Your task to perform on an android device: manage bookmarks in the chrome app Image 0: 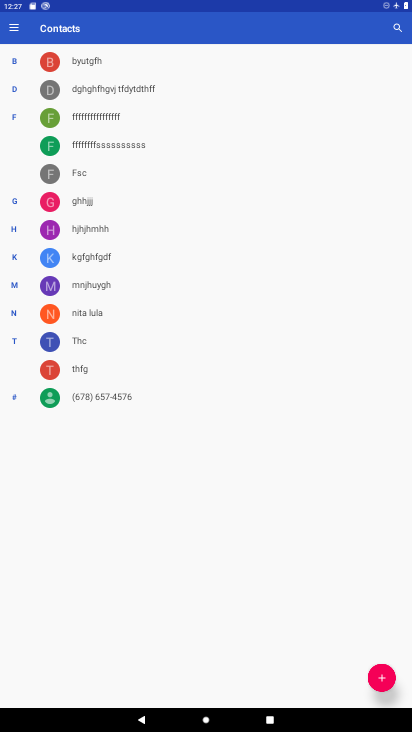
Step 0: press home button
Your task to perform on an android device: manage bookmarks in the chrome app Image 1: 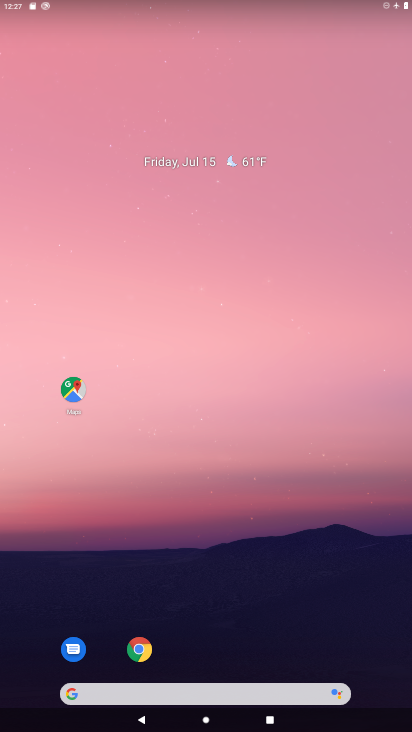
Step 1: click (148, 651)
Your task to perform on an android device: manage bookmarks in the chrome app Image 2: 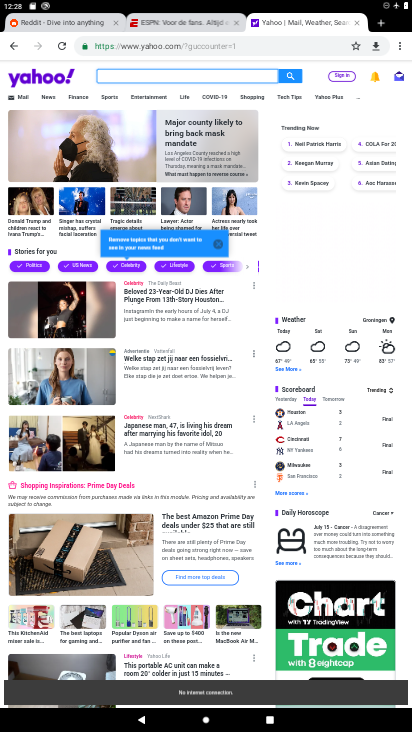
Step 2: click (401, 47)
Your task to perform on an android device: manage bookmarks in the chrome app Image 3: 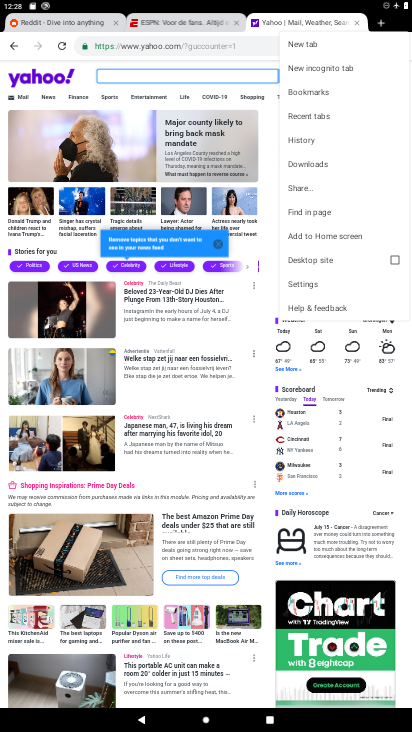
Step 3: click (323, 89)
Your task to perform on an android device: manage bookmarks in the chrome app Image 4: 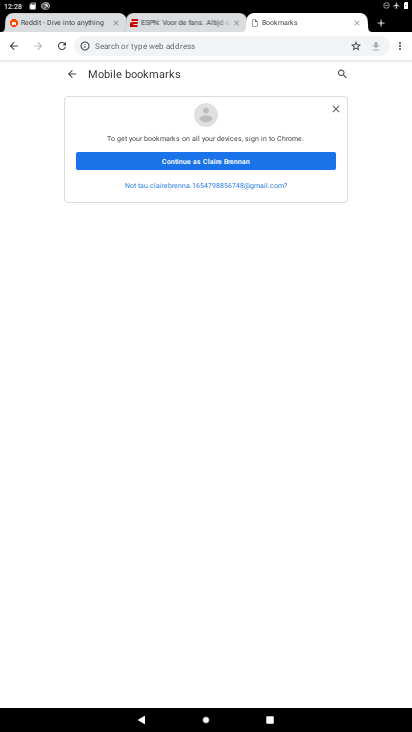
Step 4: click (219, 168)
Your task to perform on an android device: manage bookmarks in the chrome app Image 5: 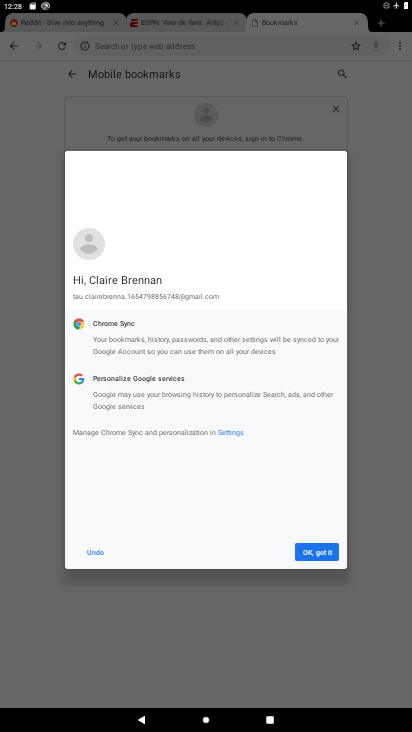
Step 5: click (306, 545)
Your task to perform on an android device: manage bookmarks in the chrome app Image 6: 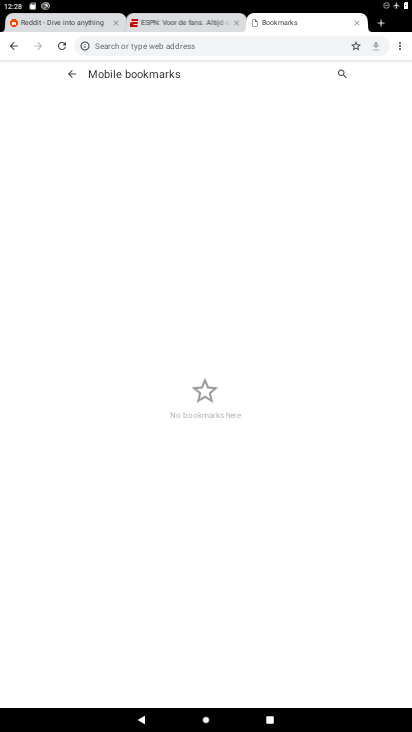
Step 6: task complete